Your task to perform on an android device: Open battery settings Image 0: 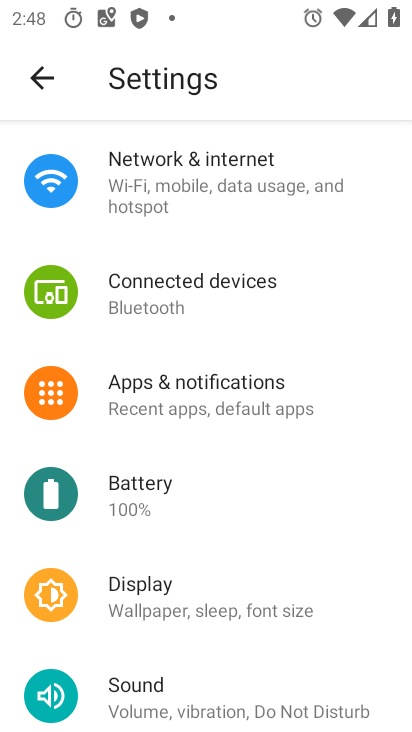
Step 0: click (203, 483)
Your task to perform on an android device: Open battery settings Image 1: 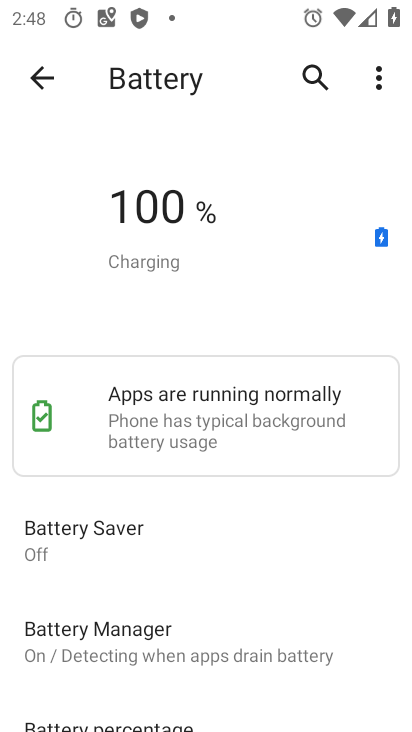
Step 1: task complete